Your task to perform on an android device: Search for sushi restaurants on Maps Image 0: 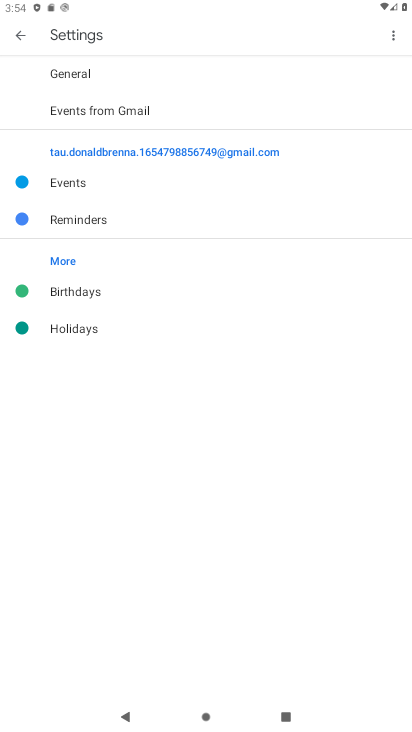
Step 0: press home button
Your task to perform on an android device: Search for sushi restaurants on Maps Image 1: 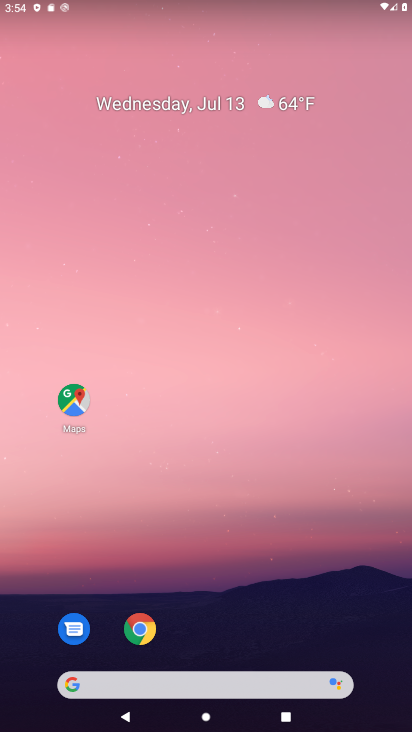
Step 1: click (82, 405)
Your task to perform on an android device: Search for sushi restaurants on Maps Image 2: 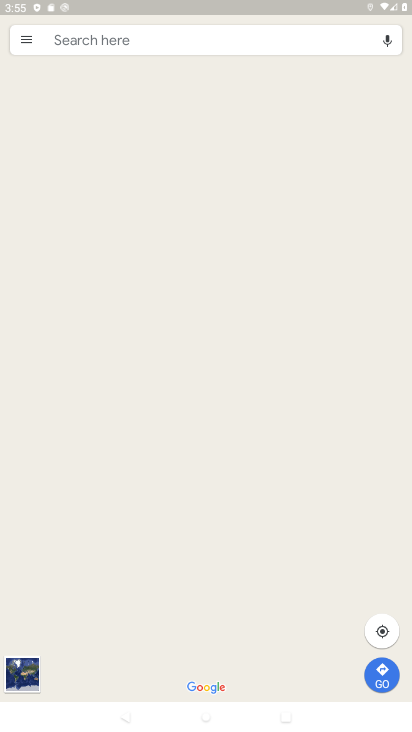
Step 2: click (205, 43)
Your task to perform on an android device: Search for sushi restaurants on Maps Image 3: 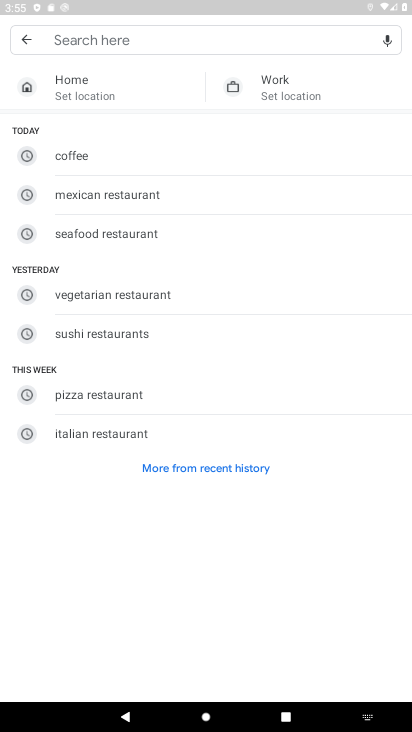
Step 3: type "sushi restaurants"
Your task to perform on an android device: Search for sushi restaurants on Maps Image 4: 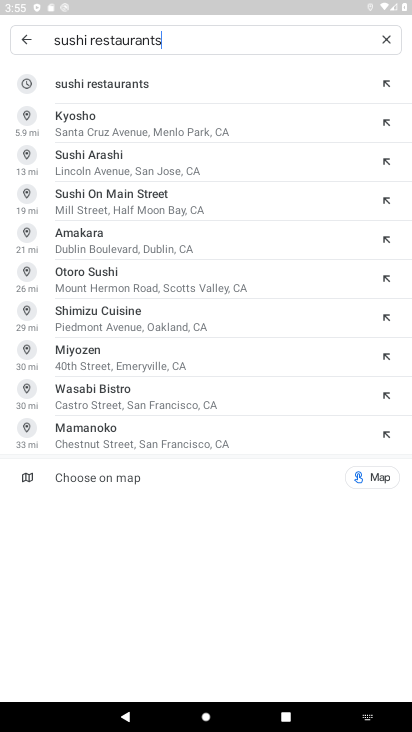
Step 4: click (160, 77)
Your task to perform on an android device: Search for sushi restaurants on Maps Image 5: 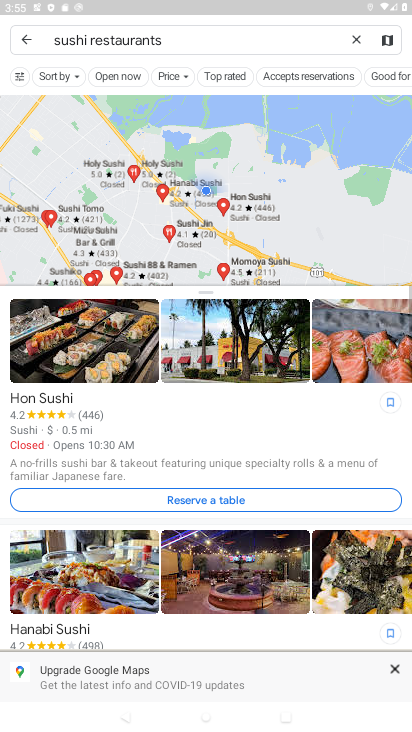
Step 5: task complete